Your task to perform on an android device: turn off wifi Image 0: 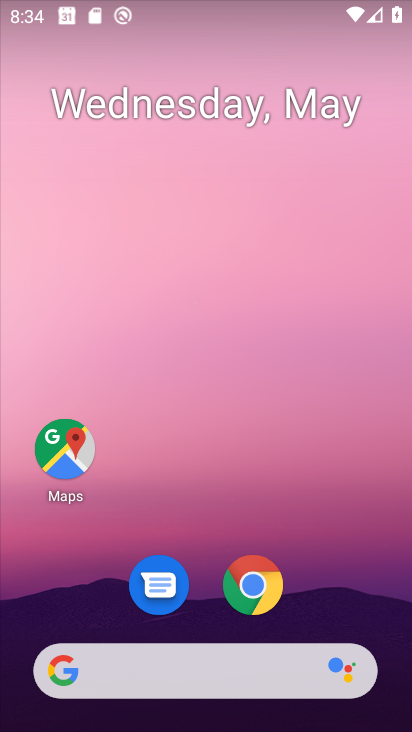
Step 0: drag from (301, 471) to (305, 54)
Your task to perform on an android device: turn off wifi Image 1: 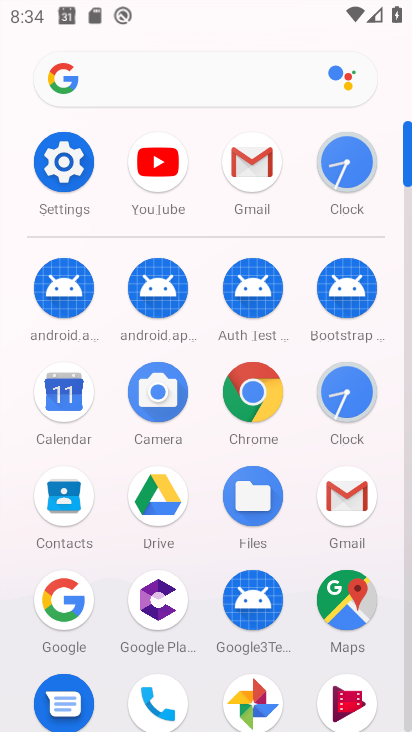
Step 1: click (81, 171)
Your task to perform on an android device: turn off wifi Image 2: 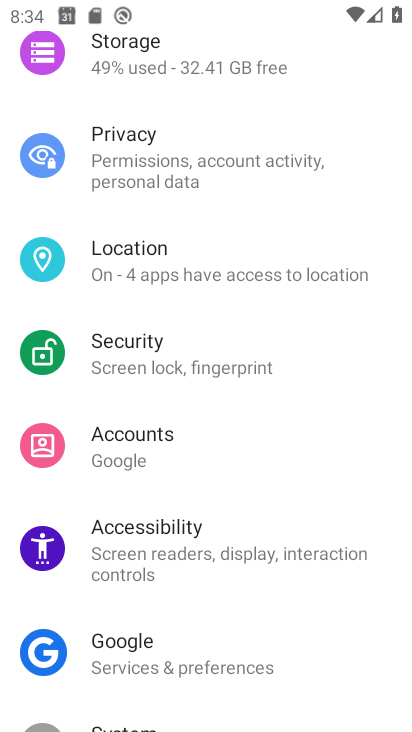
Step 2: drag from (205, 184) to (281, 659)
Your task to perform on an android device: turn off wifi Image 3: 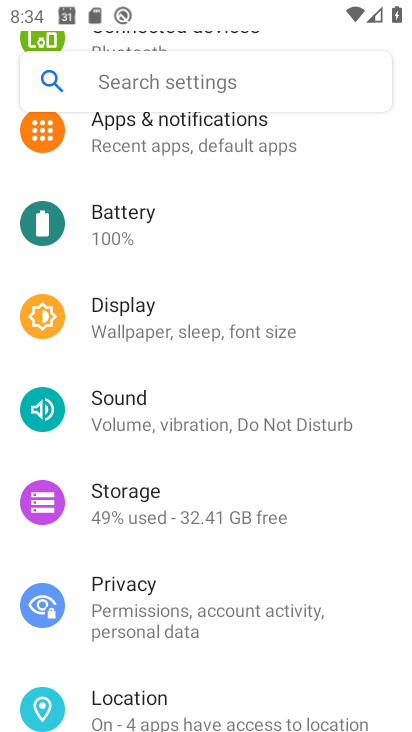
Step 3: drag from (220, 200) to (281, 586)
Your task to perform on an android device: turn off wifi Image 4: 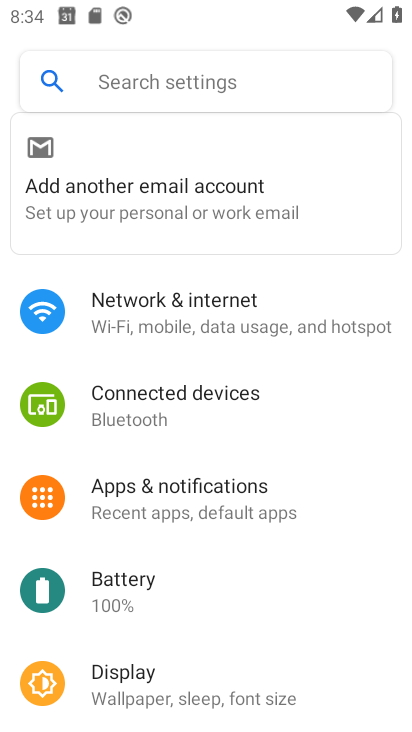
Step 4: click (223, 317)
Your task to perform on an android device: turn off wifi Image 5: 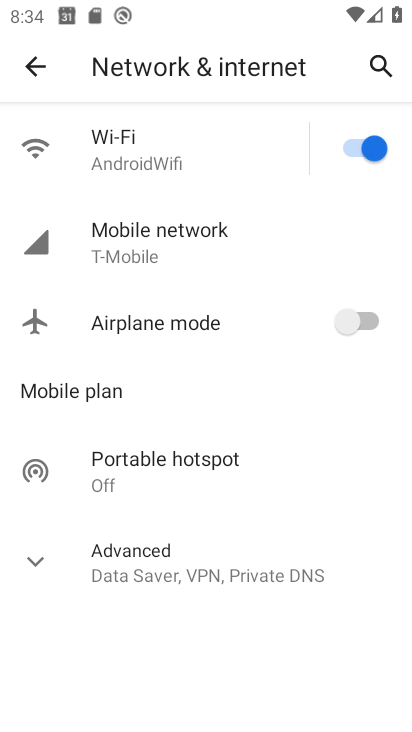
Step 5: click (352, 143)
Your task to perform on an android device: turn off wifi Image 6: 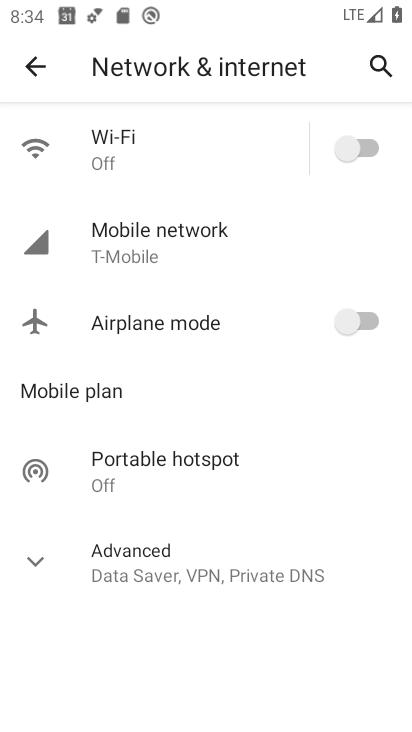
Step 6: task complete